Your task to perform on an android device: Play the last video I watched on Youtube Image 0: 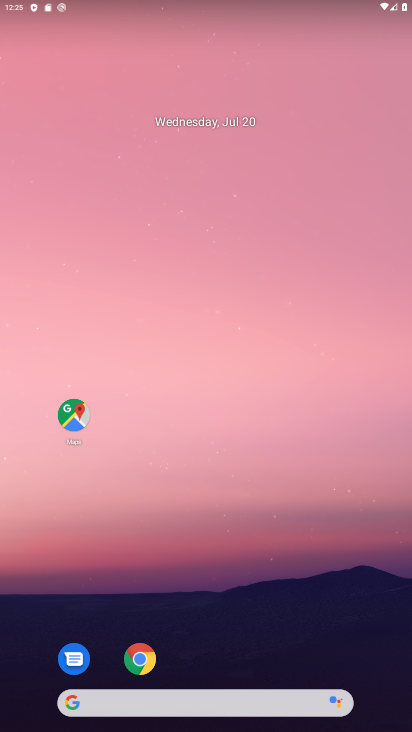
Step 0: drag from (348, 641) to (265, 1)
Your task to perform on an android device: Play the last video I watched on Youtube Image 1: 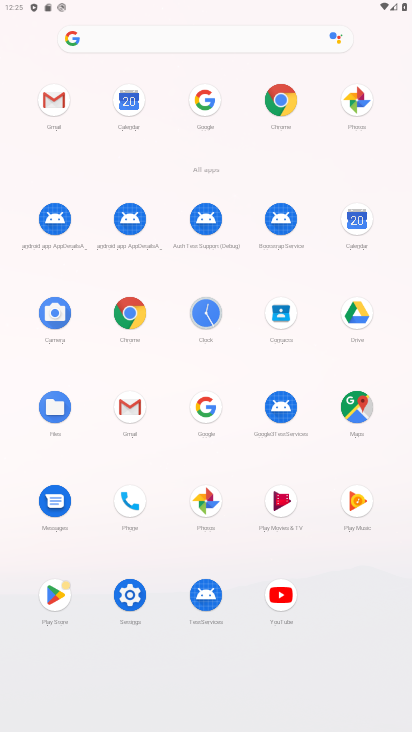
Step 1: click (280, 644)
Your task to perform on an android device: Play the last video I watched on Youtube Image 2: 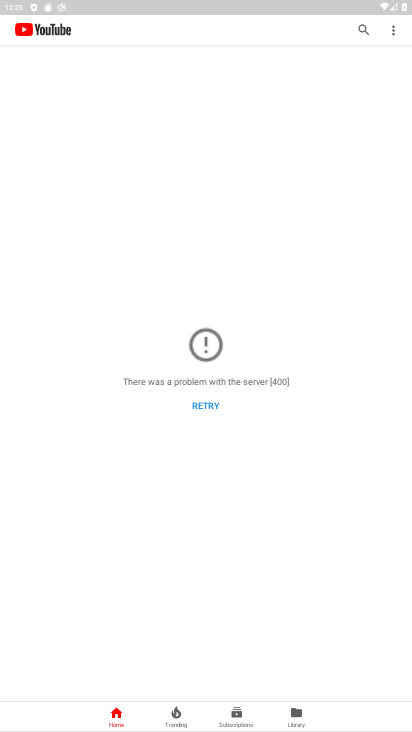
Step 2: task complete